Your task to perform on an android device: choose inbox layout in the gmail app Image 0: 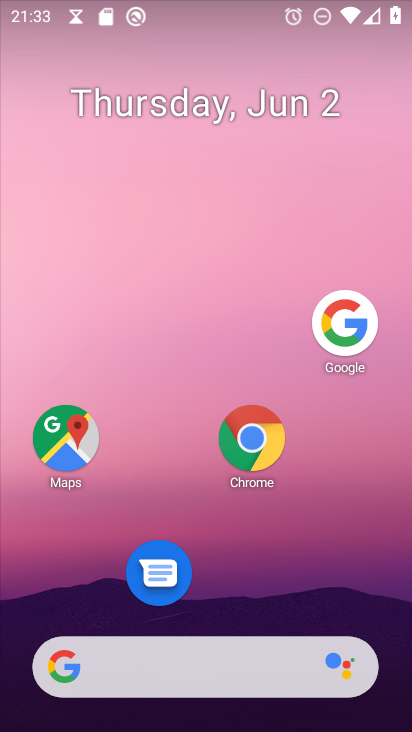
Step 0: press home button
Your task to perform on an android device: choose inbox layout in the gmail app Image 1: 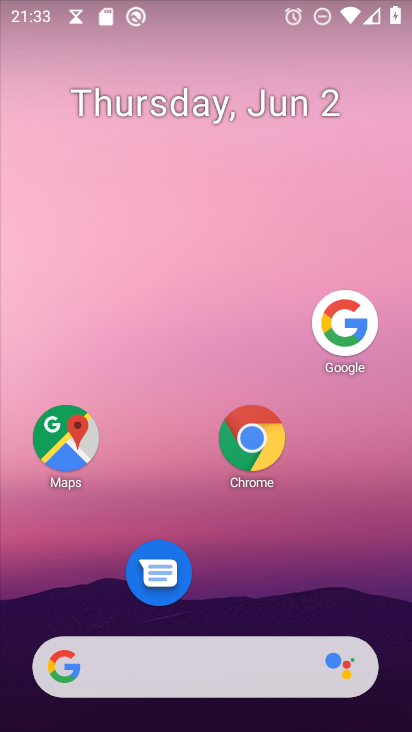
Step 1: drag from (199, 611) to (296, 176)
Your task to perform on an android device: choose inbox layout in the gmail app Image 2: 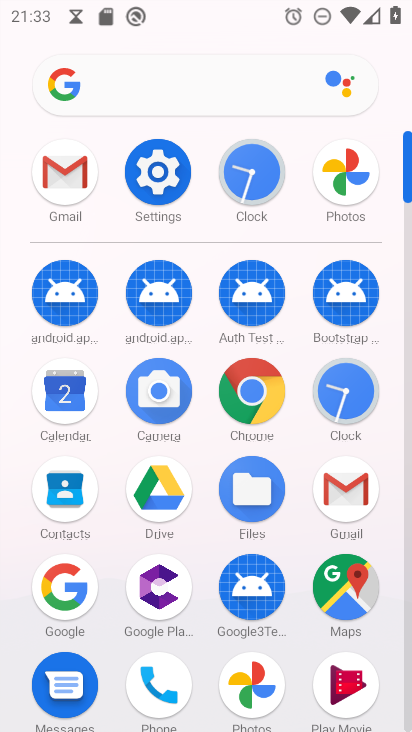
Step 2: click (66, 189)
Your task to perform on an android device: choose inbox layout in the gmail app Image 3: 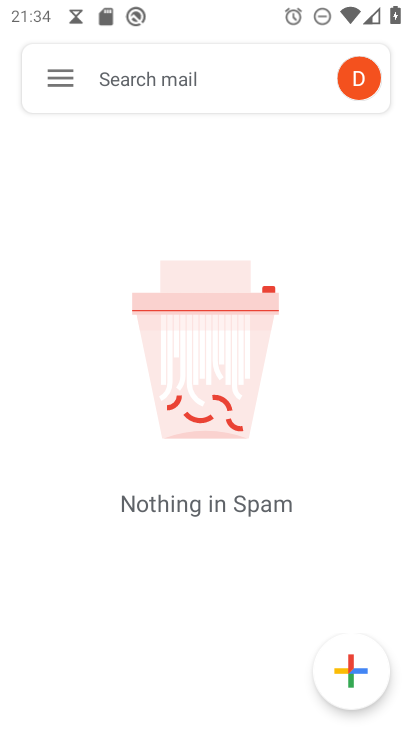
Step 3: click (52, 80)
Your task to perform on an android device: choose inbox layout in the gmail app Image 4: 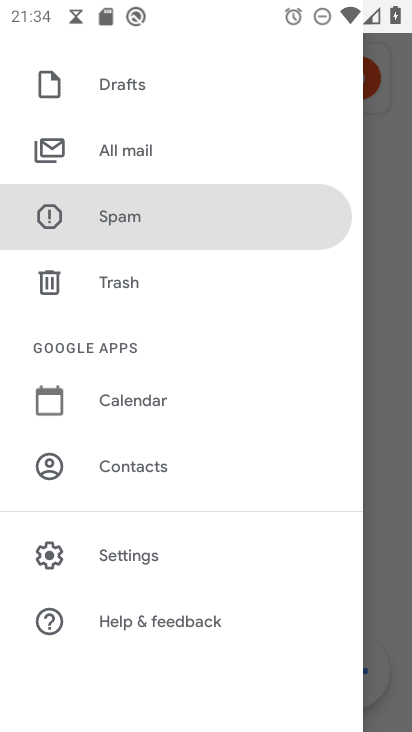
Step 4: click (155, 549)
Your task to perform on an android device: choose inbox layout in the gmail app Image 5: 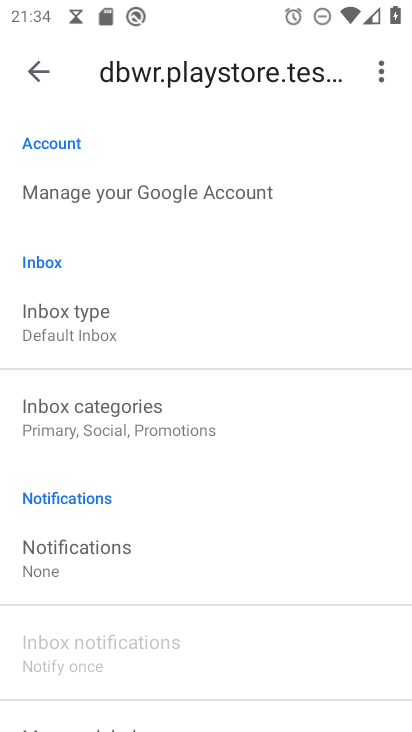
Step 5: click (80, 318)
Your task to perform on an android device: choose inbox layout in the gmail app Image 6: 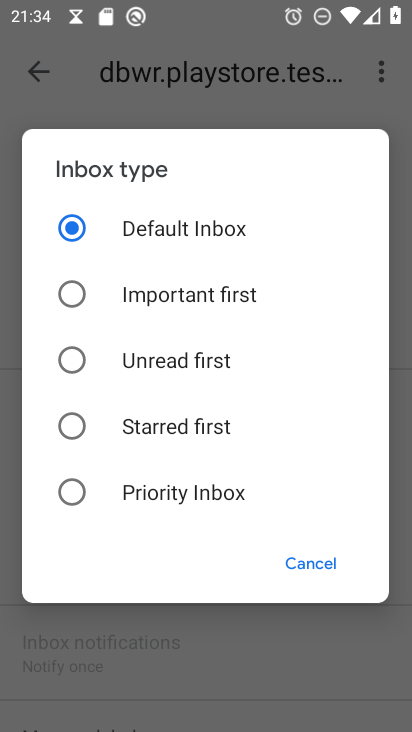
Step 6: click (83, 355)
Your task to perform on an android device: choose inbox layout in the gmail app Image 7: 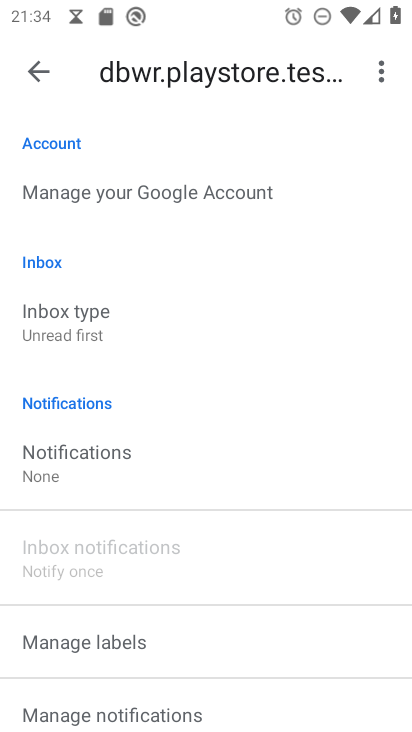
Step 7: task complete